Your task to perform on an android device: empty trash in the gmail app Image 0: 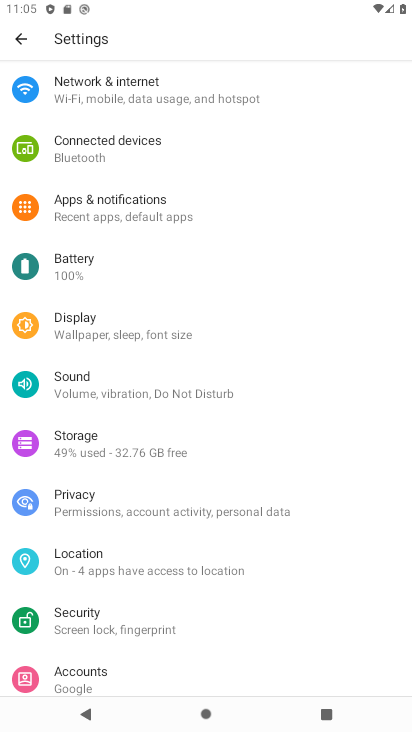
Step 0: press home button
Your task to perform on an android device: empty trash in the gmail app Image 1: 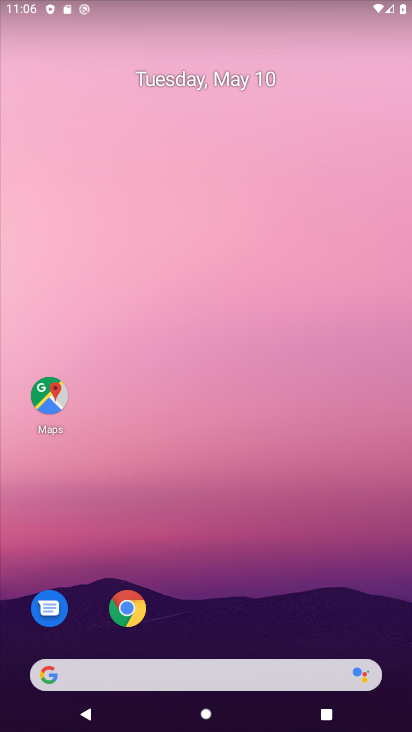
Step 1: drag from (209, 572) to (224, 159)
Your task to perform on an android device: empty trash in the gmail app Image 2: 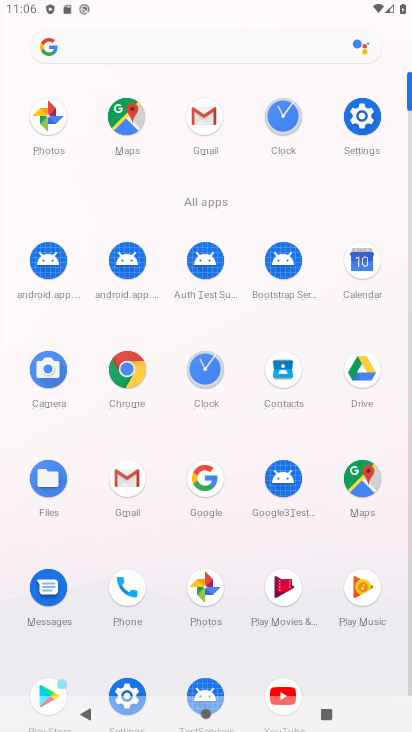
Step 2: click (202, 117)
Your task to perform on an android device: empty trash in the gmail app Image 3: 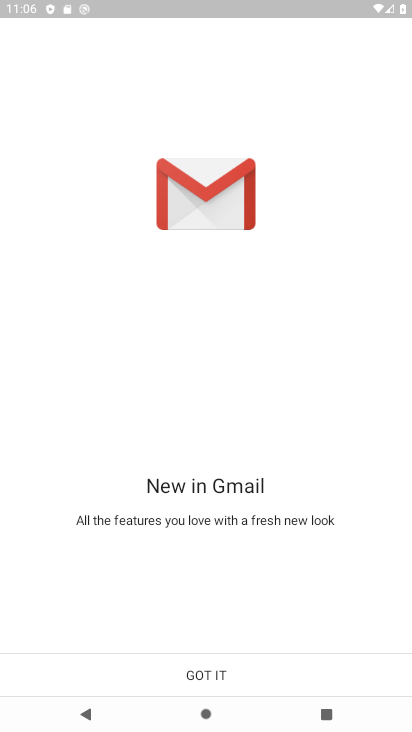
Step 3: click (272, 670)
Your task to perform on an android device: empty trash in the gmail app Image 4: 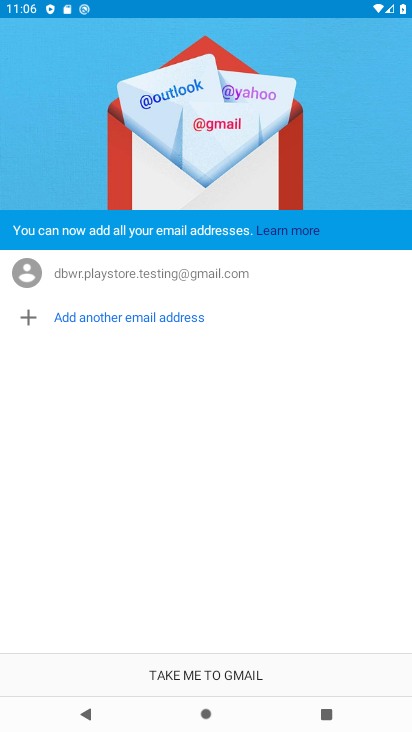
Step 4: click (272, 670)
Your task to perform on an android device: empty trash in the gmail app Image 5: 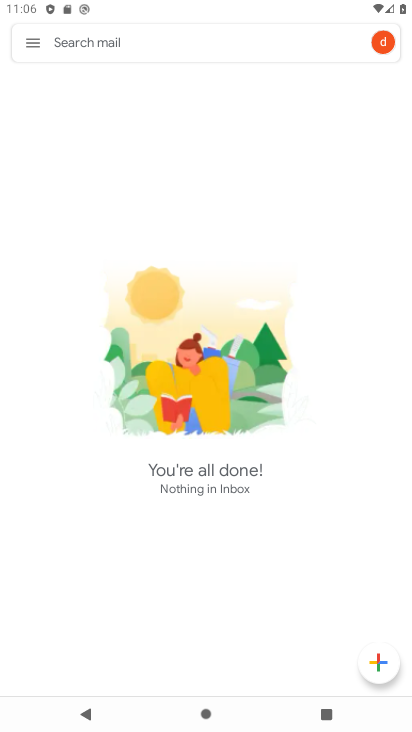
Step 5: click (30, 43)
Your task to perform on an android device: empty trash in the gmail app Image 6: 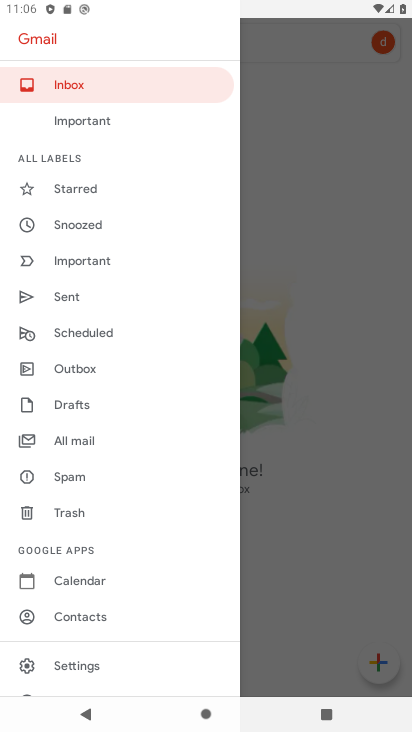
Step 6: click (73, 503)
Your task to perform on an android device: empty trash in the gmail app Image 7: 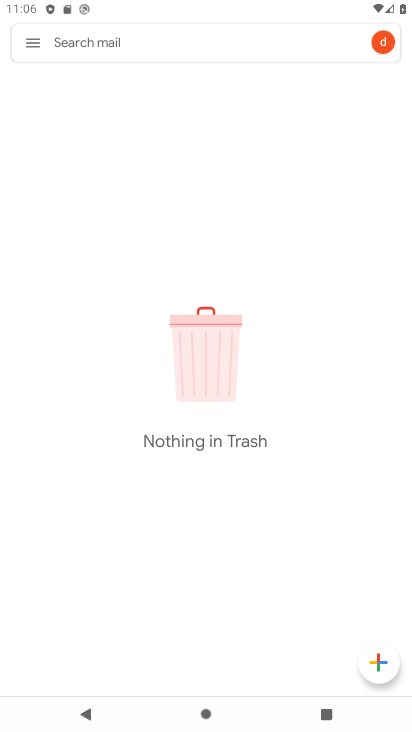
Step 7: task complete